Your task to perform on an android device: Go to Yahoo.com Image 0: 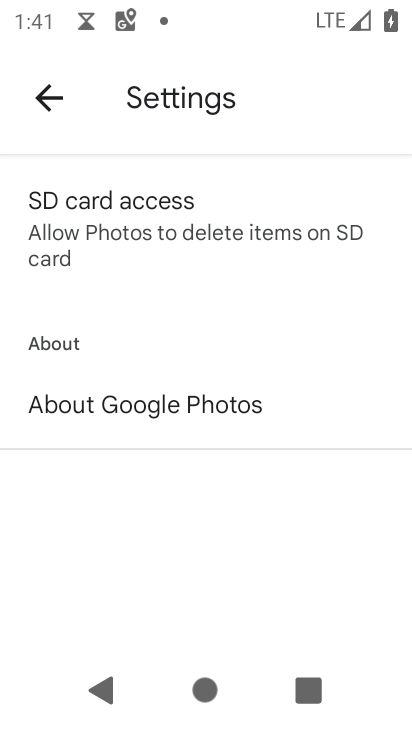
Step 0: press home button
Your task to perform on an android device: Go to Yahoo.com Image 1: 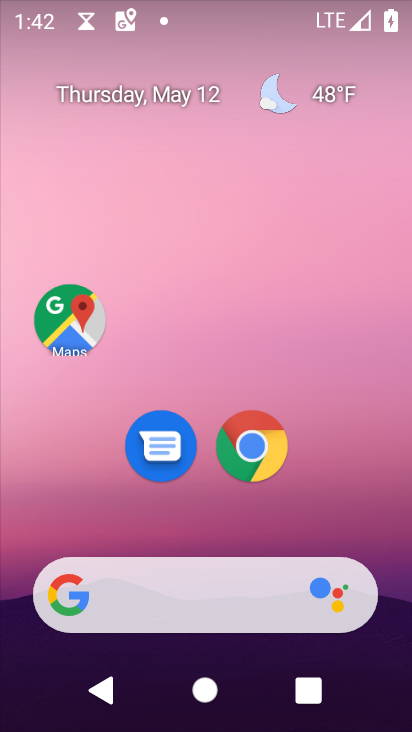
Step 1: click (266, 450)
Your task to perform on an android device: Go to Yahoo.com Image 2: 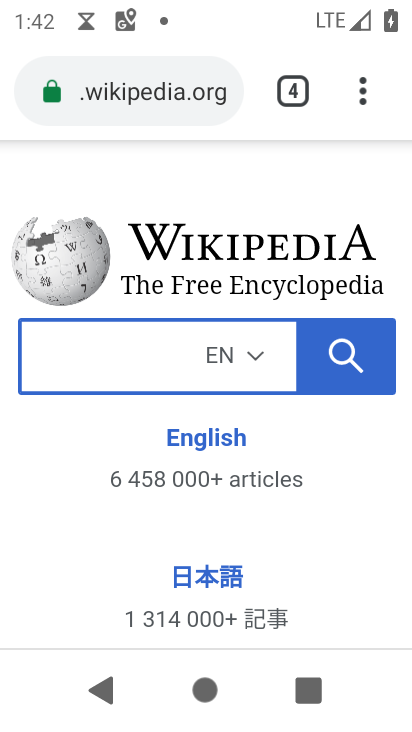
Step 2: click (300, 92)
Your task to perform on an android device: Go to Yahoo.com Image 3: 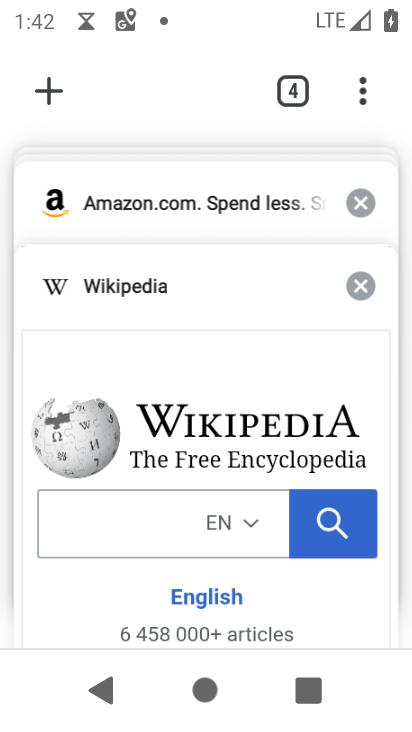
Step 3: drag from (186, 208) to (157, 488)
Your task to perform on an android device: Go to Yahoo.com Image 4: 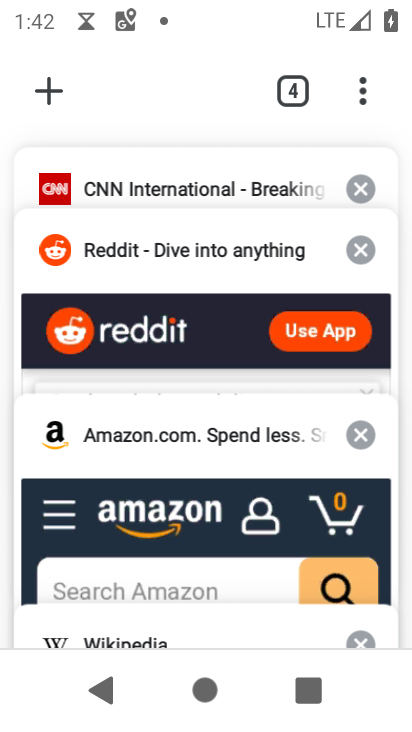
Step 4: click (54, 80)
Your task to perform on an android device: Go to Yahoo.com Image 5: 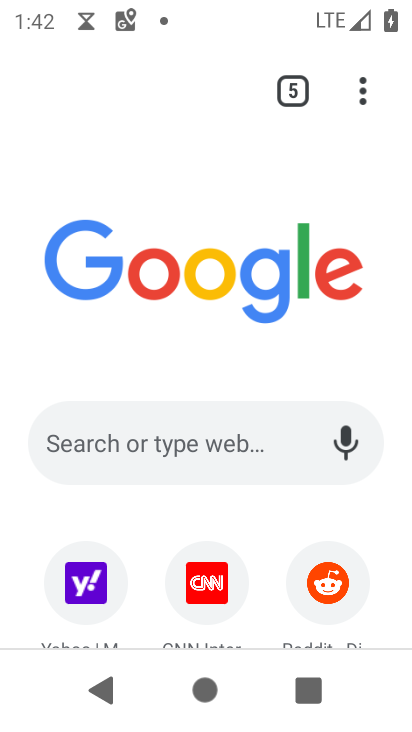
Step 5: drag from (250, 495) to (251, 176)
Your task to perform on an android device: Go to Yahoo.com Image 6: 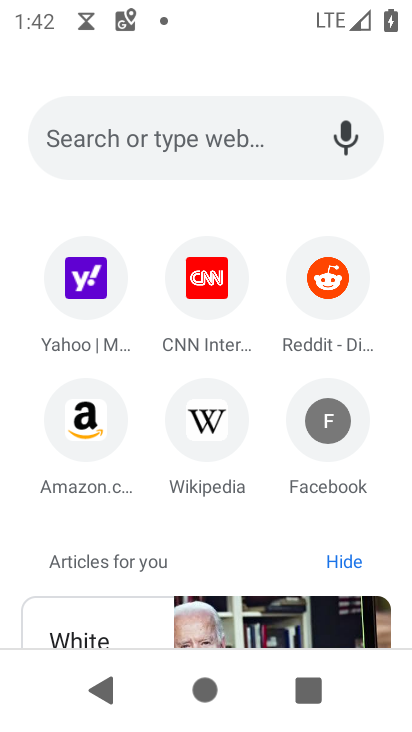
Step 6: click (47, 263)
Your task to perform on an android device: Go to Yahoo.com Image 7: 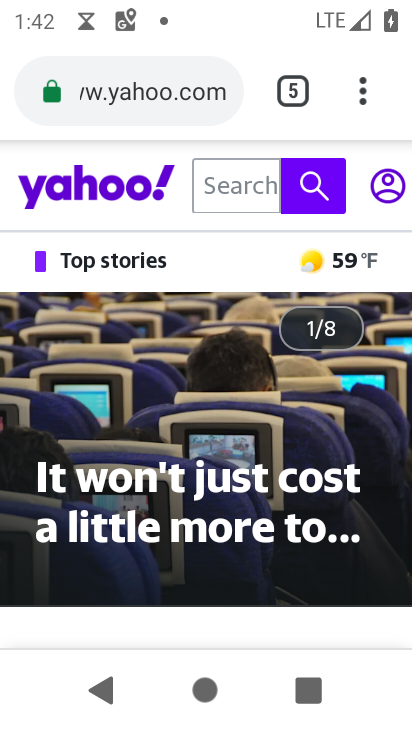
Step 7: task complete